Your task to perform on an android device: Open internet settings Image 0: 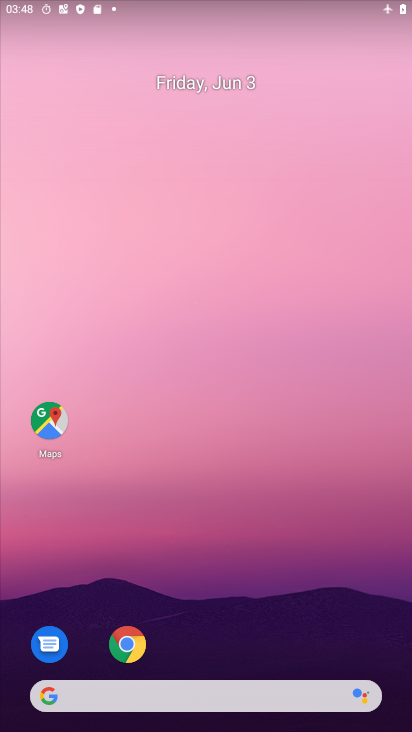
Step 0: drag from (220, 647) to (233, 190)
Your task to perform on an android device: Open internet settings Image 1: 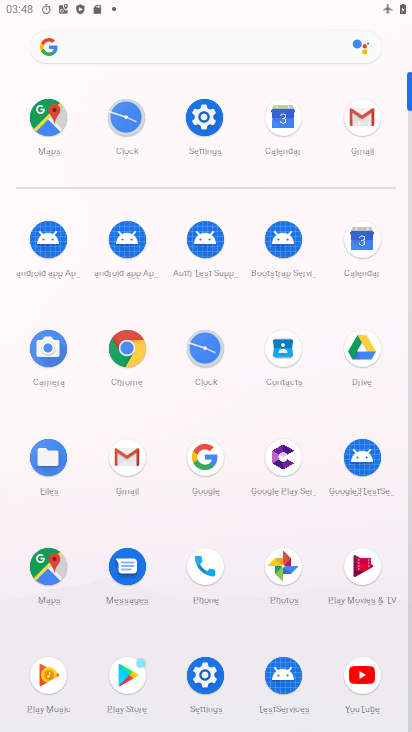
Step 1: click (212, 126)
Your task to perform on an android device: Open internet settings Image 2: 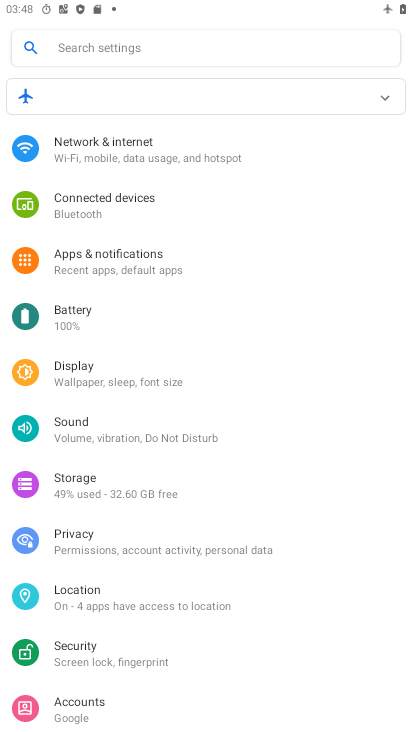
Step 2: click (153, 159)
Your task to perform on an android device: Open internet settings Image 3: 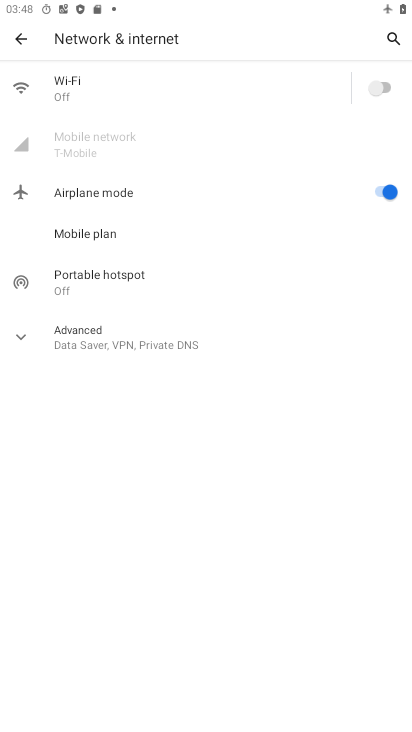
Step 3: click (132, 126)
Your task to perform on an android device: Open internet settings Image 4: 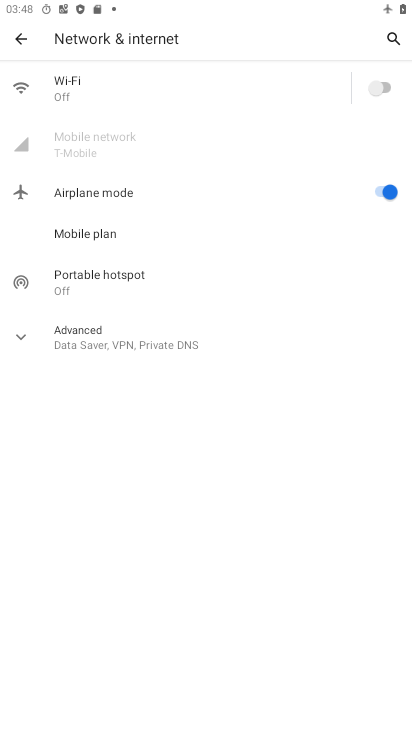
Step 4: click (137, 139)
Your task to perform on an android device: Open internet settings Image 5: 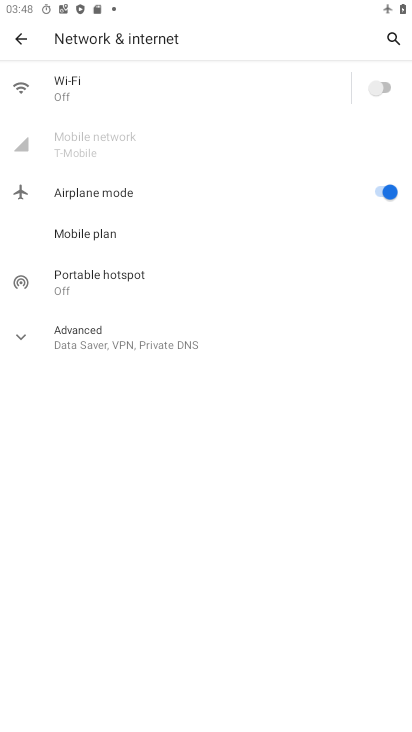
Step 5: task complete